Your task to perform on an android device: open app "Facebook Messenger" (install if not already installed), go to login, and select forgot password Image 0: 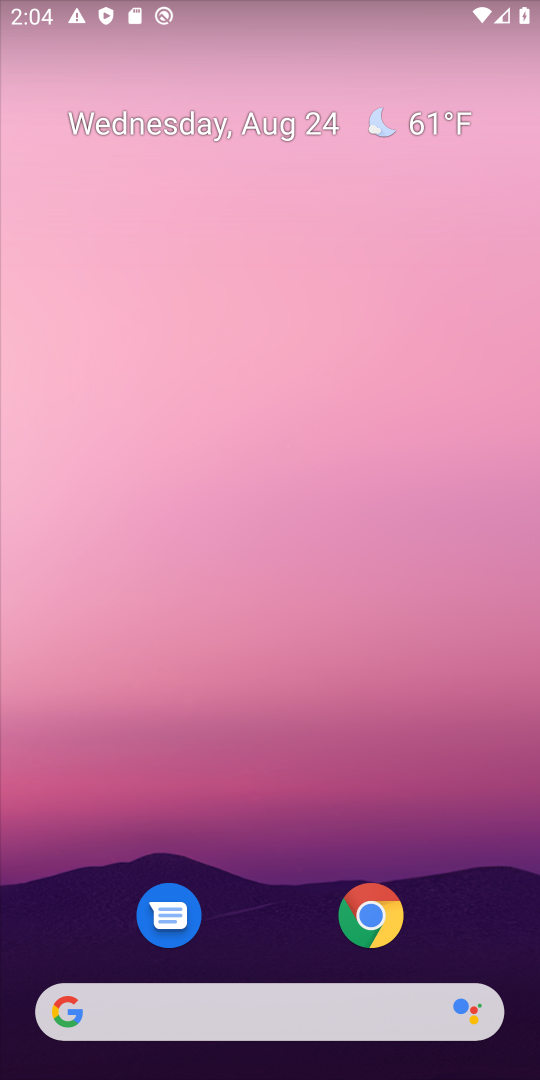
Step 0: drag from (314, 702) to (347, 241)
Your task to perform on an android device: open app "Facebook Messenger" (install if not already installed), go to login, and select forgot password Image 1: 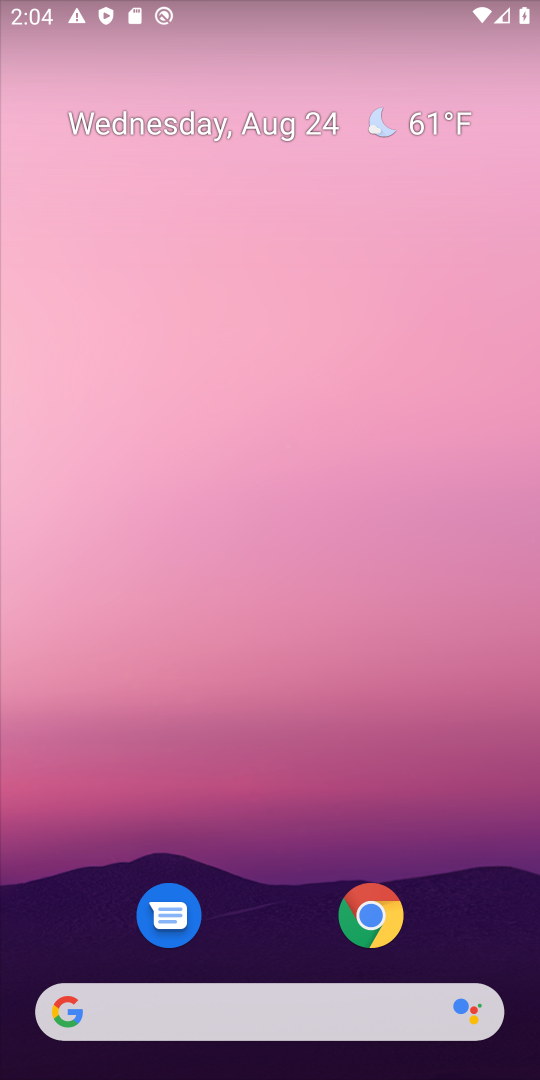
Step 1: drag from (270, 850) to (329, 131)
Your task to perform on an android device: open app "Facebook Messenger" (install if not already installed), go to login, and select forgot password Image 2: 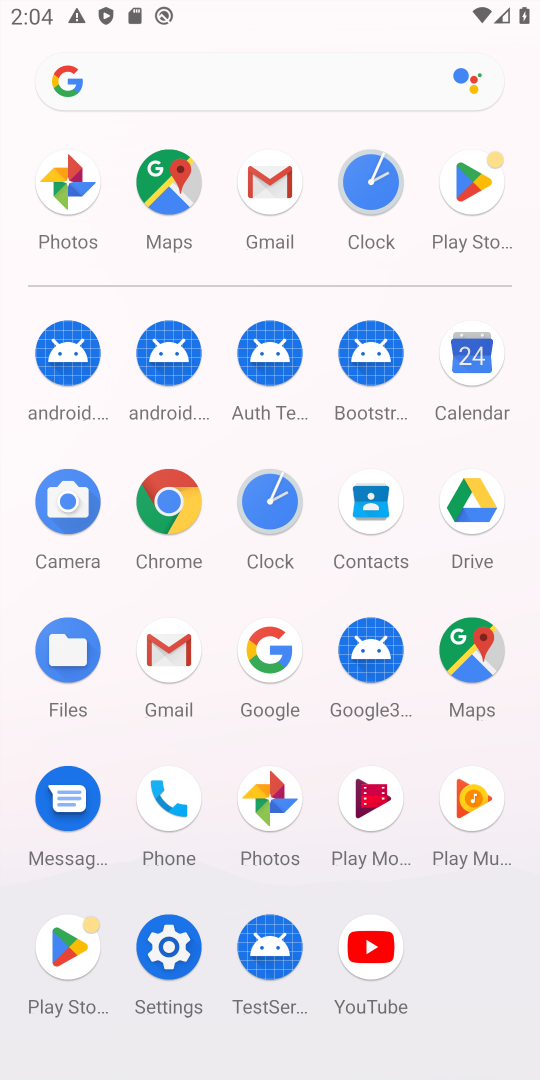
Step 2: click (462, 181)
Your task to perform on an android device: open app "Facebook Messenger" (install if not already installed), go to login, and select forgot password Image 3: 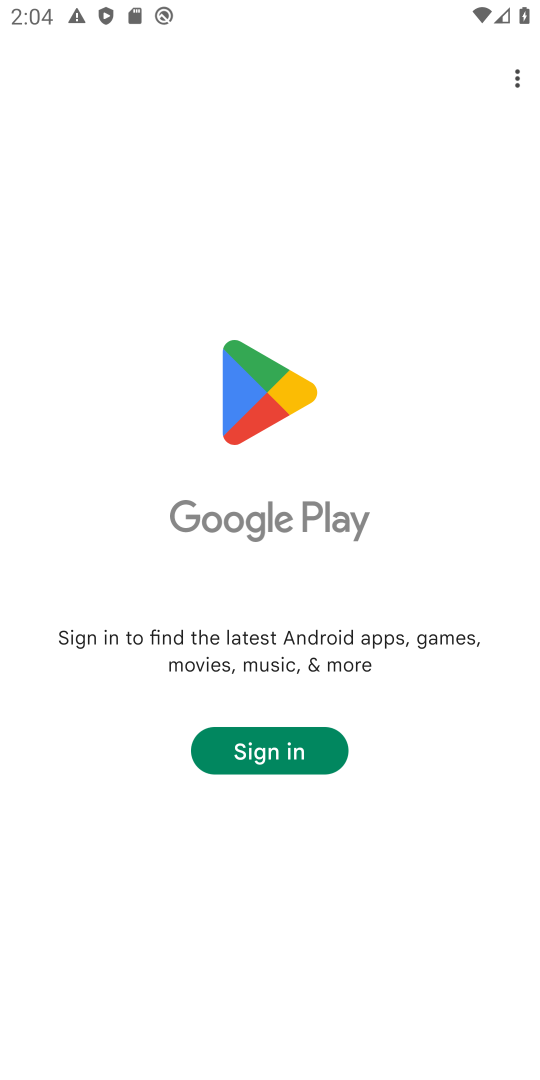
Step 3: task complete